Your task to perform on an android device: snooze an email in the gmail app Image 0: 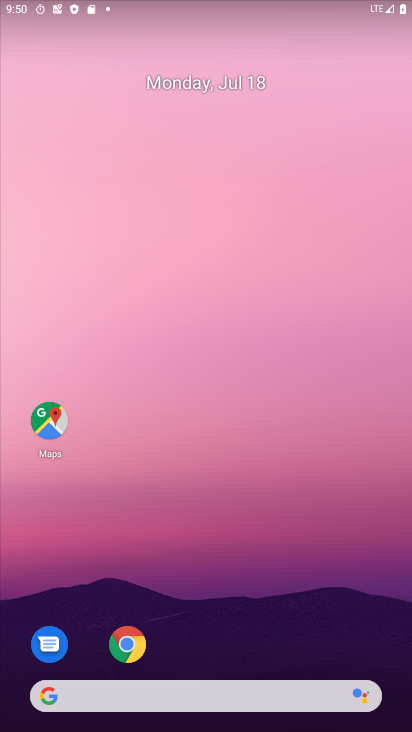
Step 0: drag from (232, 677) to (278, 31)
Your task to perform on an android device: snooze an email in the gmail app Image 1: 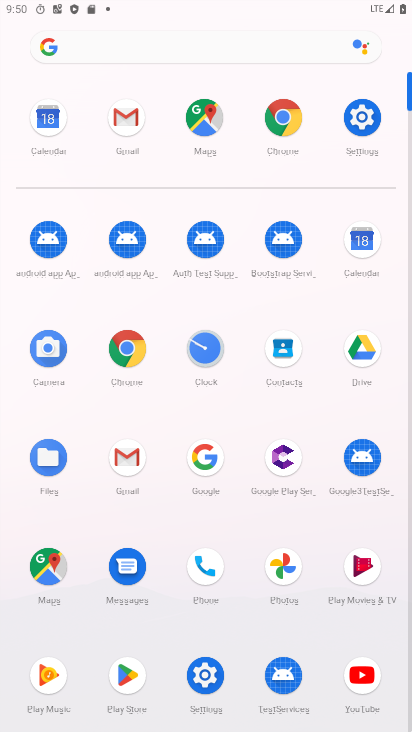
Step 1: click (140, 453)
Your task to perform on an android device: snooze an email in the gmail app Image 2: 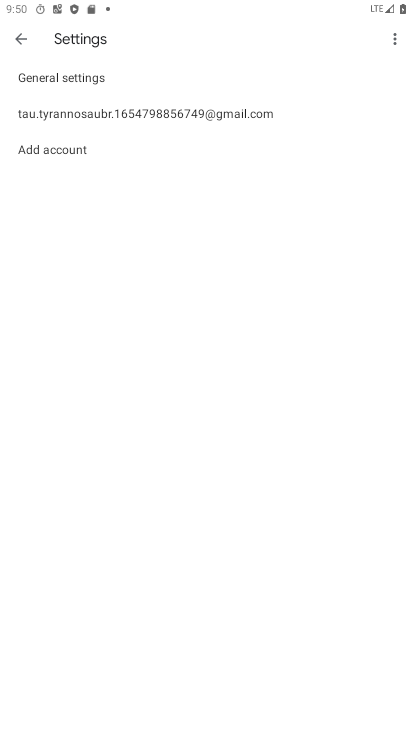
Step 2: click (20, 40)
Your task to perform on an android device: snooze an email in the gmail app Image 3: 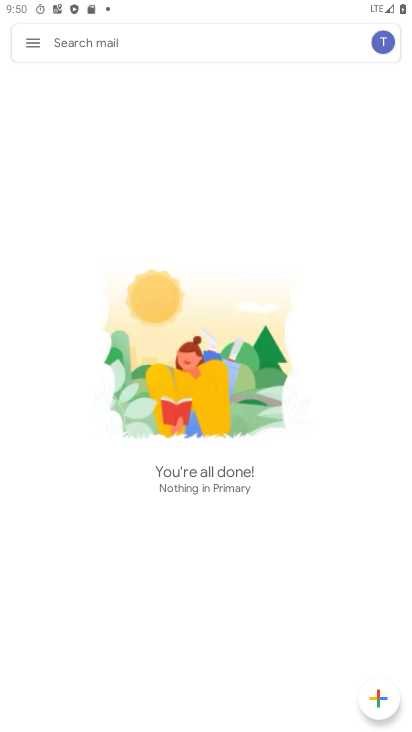
Step 3: click (27, 44)
Your task to perform on an android device: snooze an email in the gmail app Image 4: 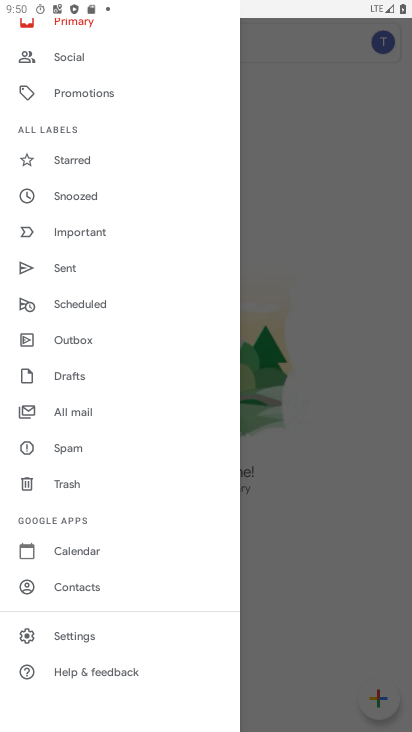
Step 4: click (74, 412)
Your task to perform on an android device: snooze an email in the gmail app Image 5: 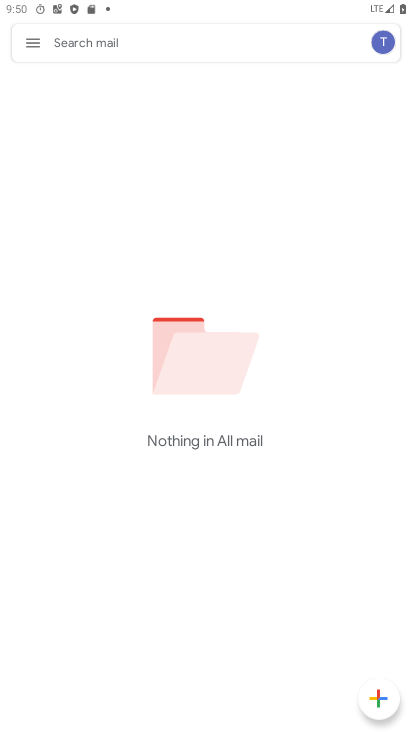
Step 5: task complete